Your task to perform on an android device: Search for vegetarian restaurants on Maps Image 0: 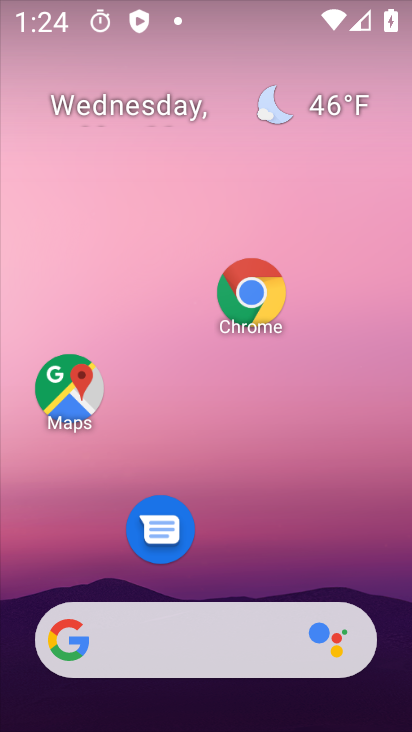
Step 0: click (77, 367)
Your task to perform on an android device: Search for vegetarian restaurants on Maps Image 1: 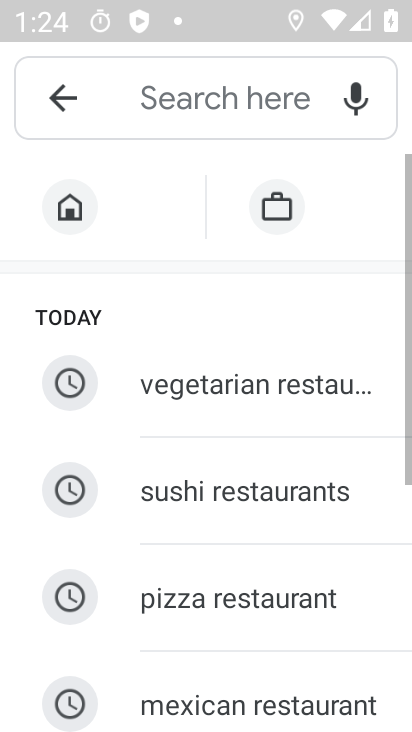
Step 1: click (231, 391)
Your task to perform on an android device: Search for vegetarian restaurants on Maps Image 2: 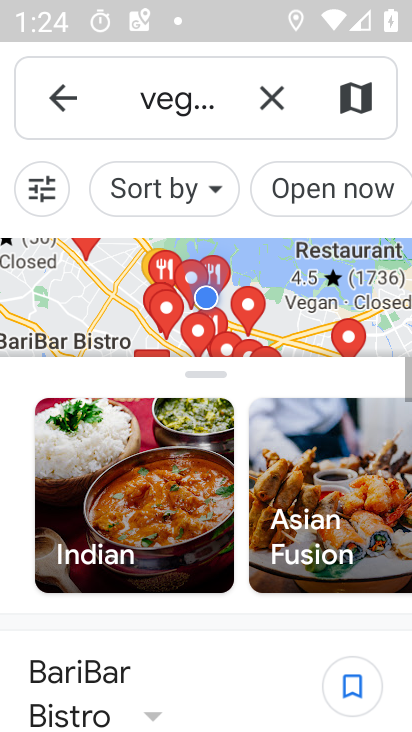
Step 2: task complete